Your task to perform on an android device: choose inbox layout in the gmail app Image 0: 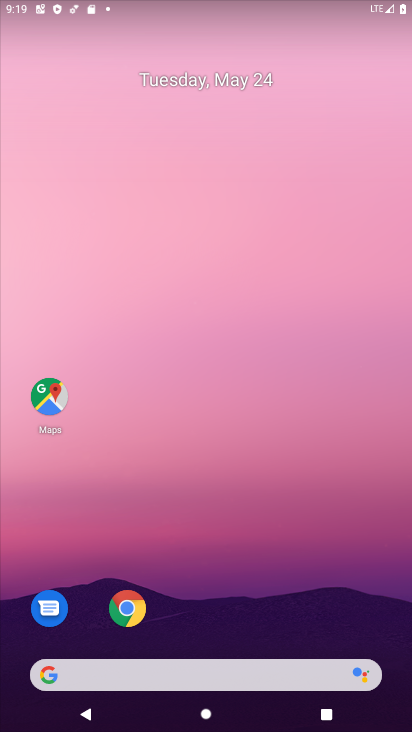
Step 0: drag from (214, 653) to (241, 0)
Your task to perform on an android device: choose inbox layout in the gmail app Image 1: 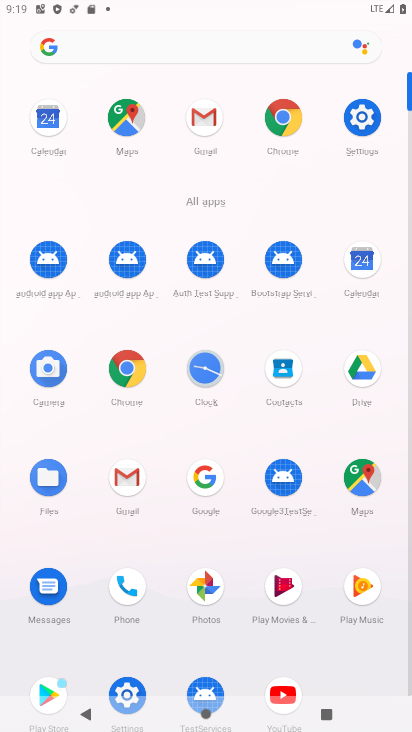
Step 1: click (122, 492)
Your task to perform on an android device: choose inbox layout in the gmail app Image 2: 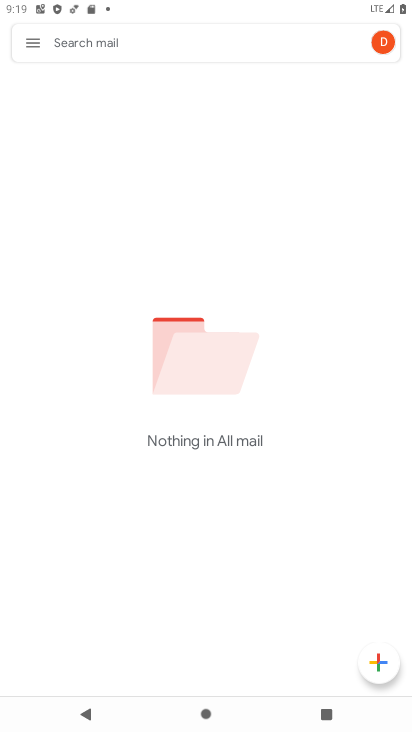
Step 2: click (34, 47)
Your task to perform on an android device: choose inbox layout in the gmail app Image 3: 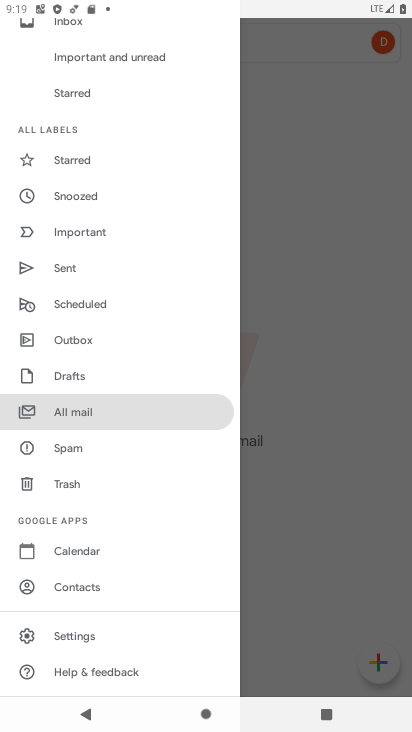
Step 3: click (84, 642)
Your task to perform on an android device: choose inbox layout in the gmail app Image 4: 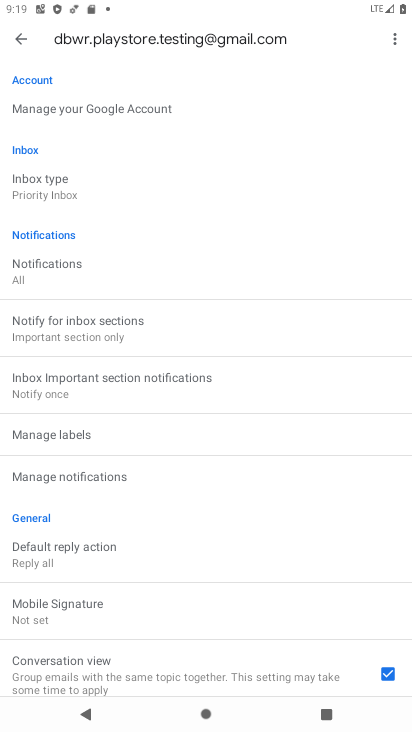
Step 4: click (75, 187)
Your task to perform on an android device: choose inbox layout in the gmail app Image 5: 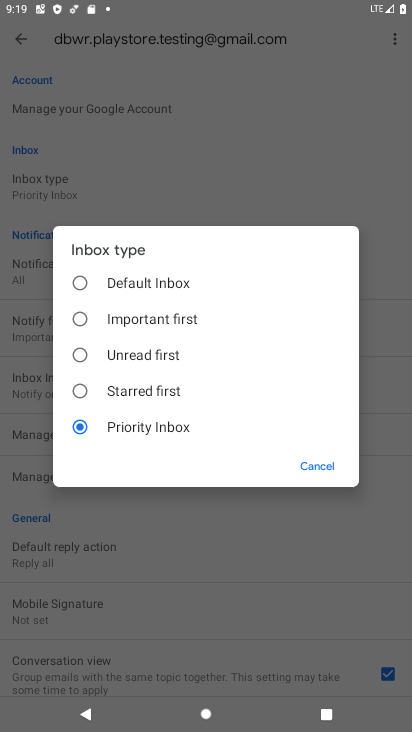
Step 5: click (132, 286)
Your task to perform on an android device: choose inbox layout in the gmail app Image 6: 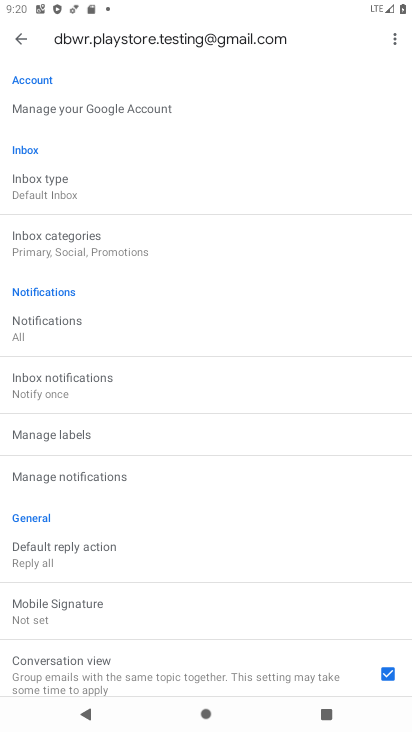
Step 6: task complete